Your task to perform on an android device: open app "DoorDash - Food Delivery" (install if not already installed) Image 0: 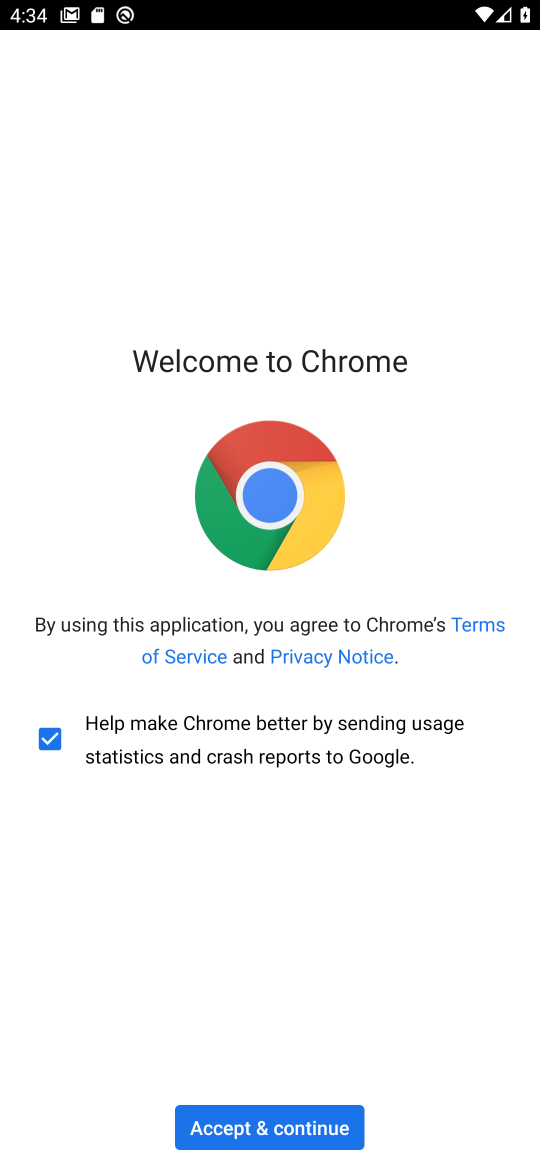
Step 0: press home button
Your task to perform on an android device: open app "DoorDash - Food Delivery" (install if not already installed) Image 1: 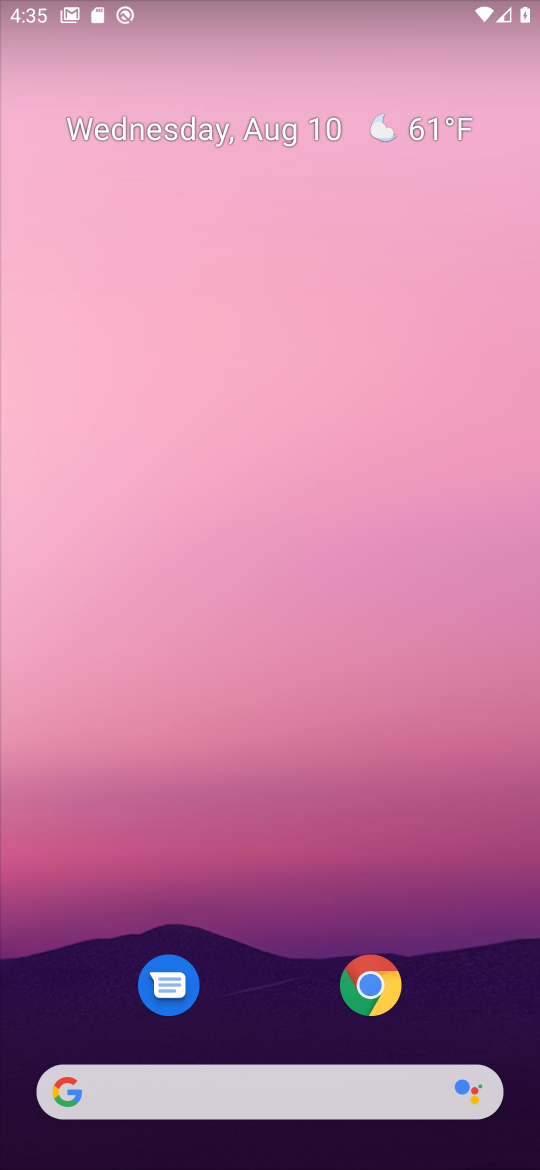
Step 1: drag from (245, 903) to (268, 13)
Your task to perform on an android device: open app "DoorDash - Food Delivery" (install if not already installed) Image 2: 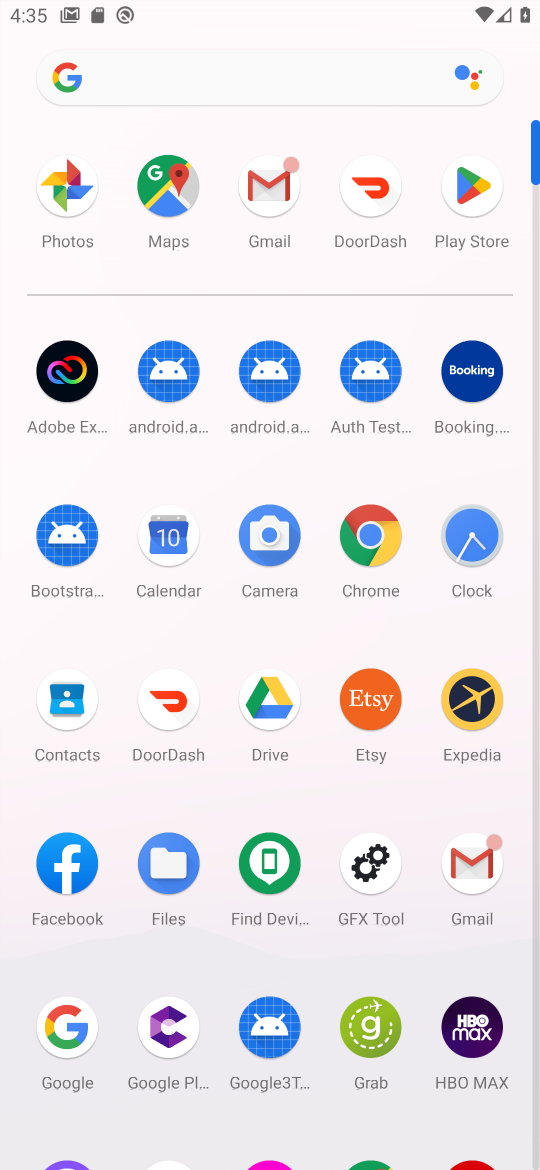
Step 2: click (471, 208)
Your task to perform on an android device: open app "DoorDash - Food Delivery" (install if not already installed) Image 3: 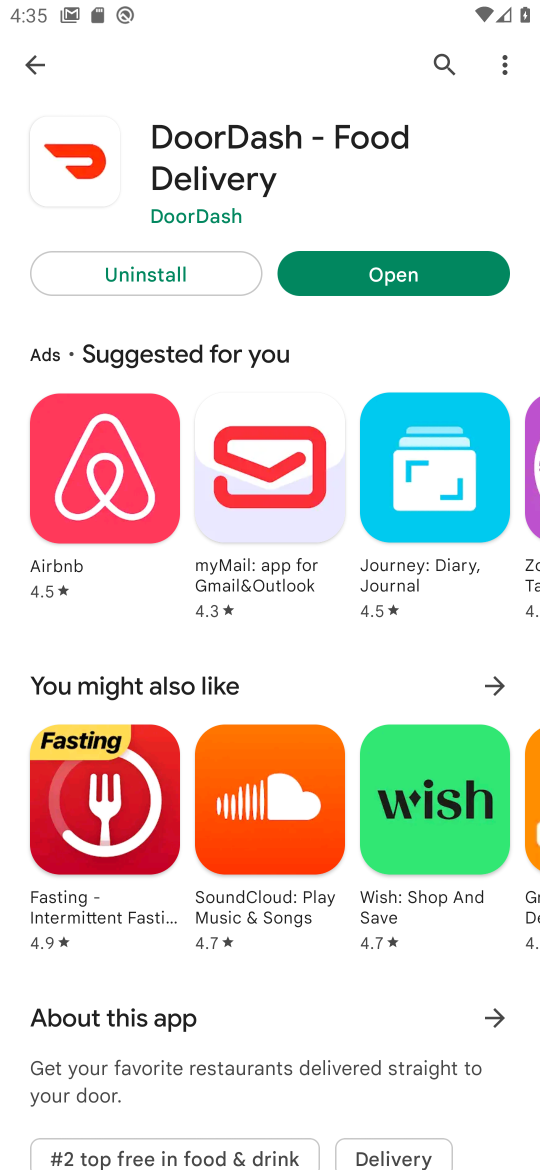
Step 3: click (382, 275)
Your task to perform on an android device: open app "DoorDash - Food Delivery" (install if not already installed) Image 4: 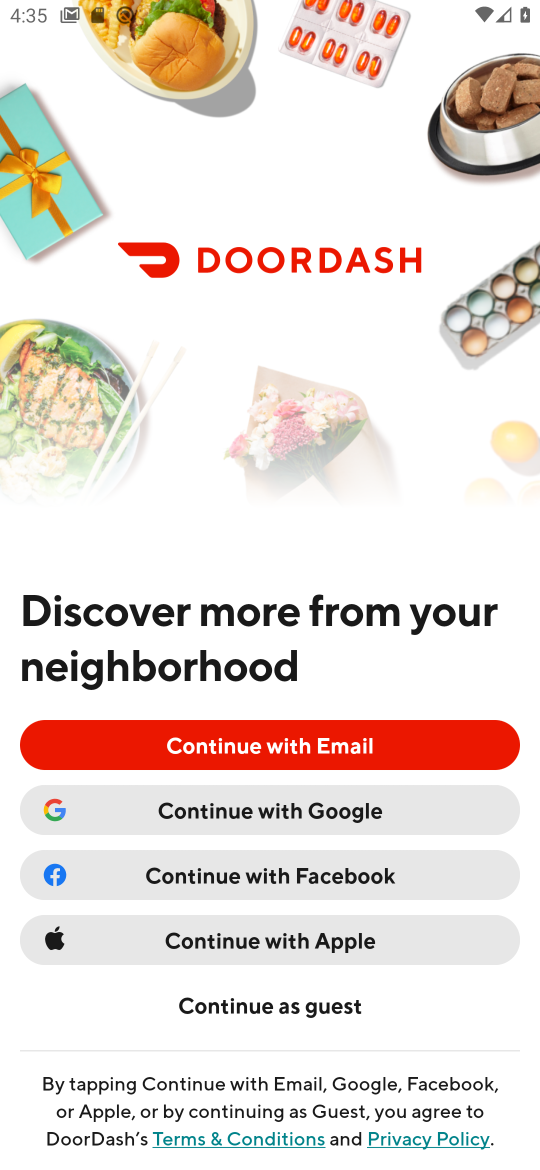
Step 4: task complete